Your task to perform on an android device: turn pop-ups off in chrome Image 0: 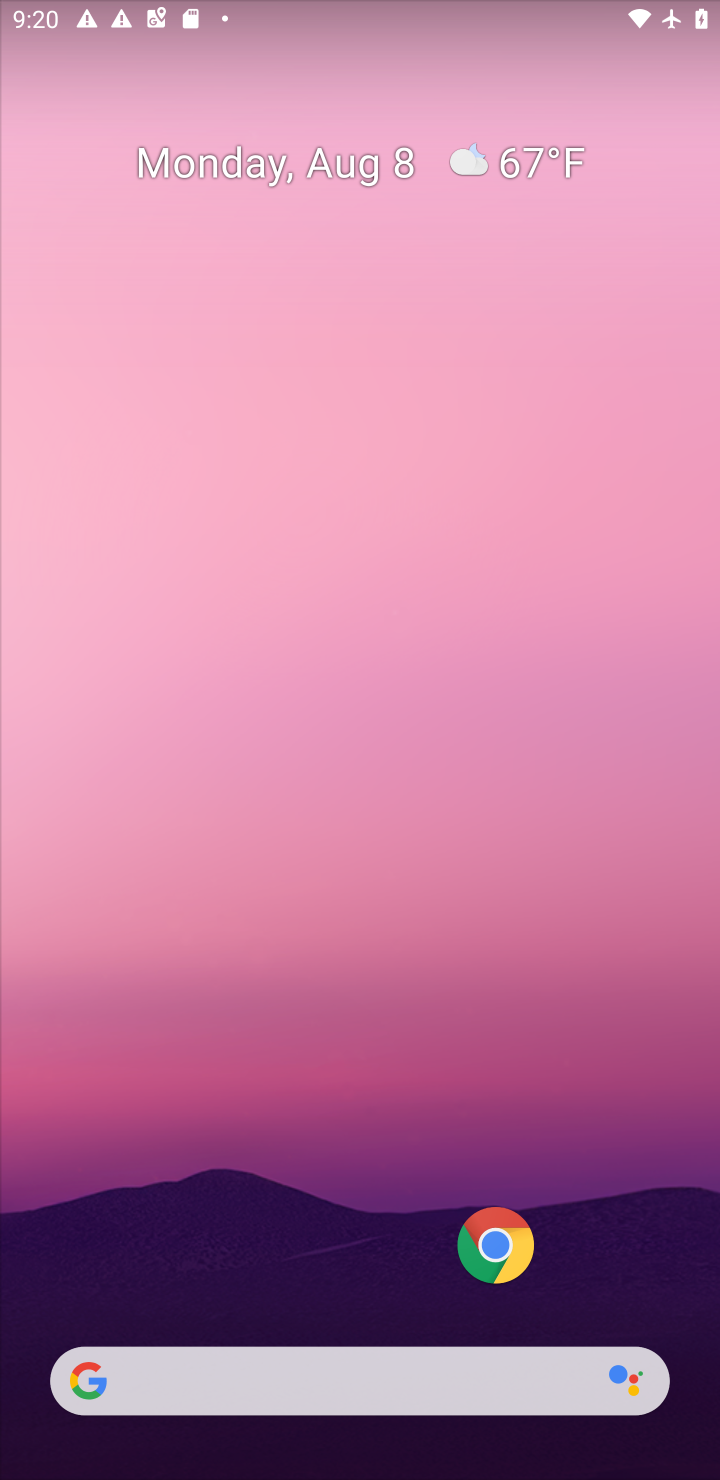
Step 0: click (470, 1240)
Your task to perform on an android device: turn pop-ups off in chrome Image 1: 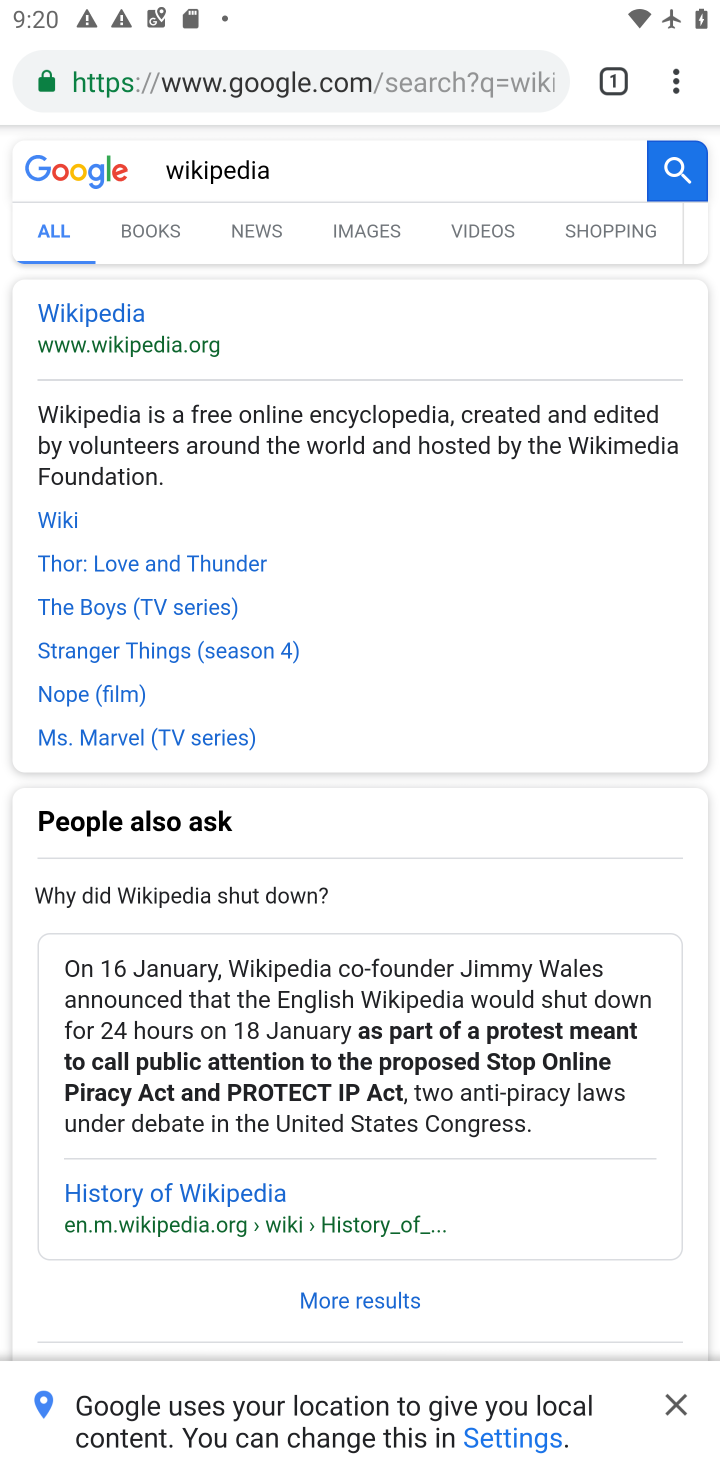
Step 1: click (667, 72)
Your task to perform on an android device: turn pop-ups off in chrome Image 2: 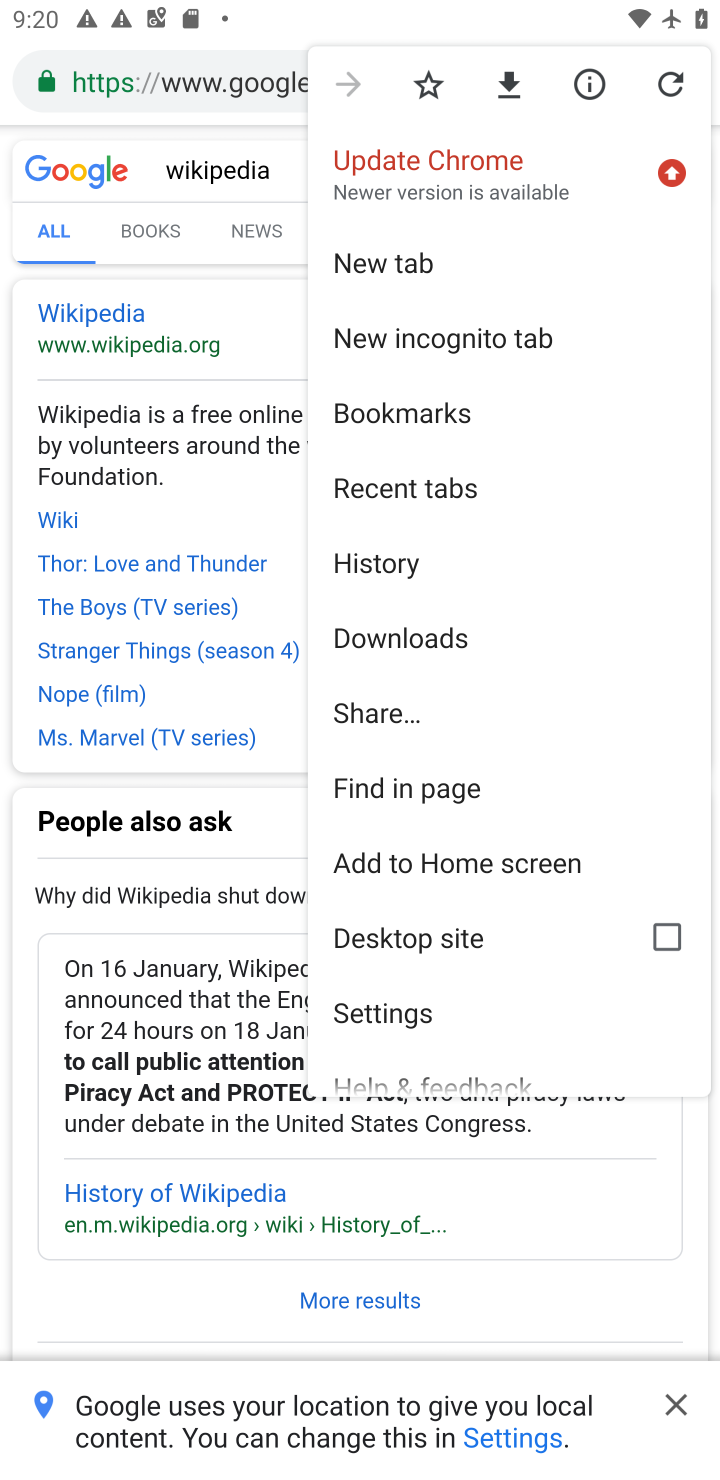
Step 2: click (416, 1004)
Your task to perform on an android device: turn pop-ups off in chrome Image 3: 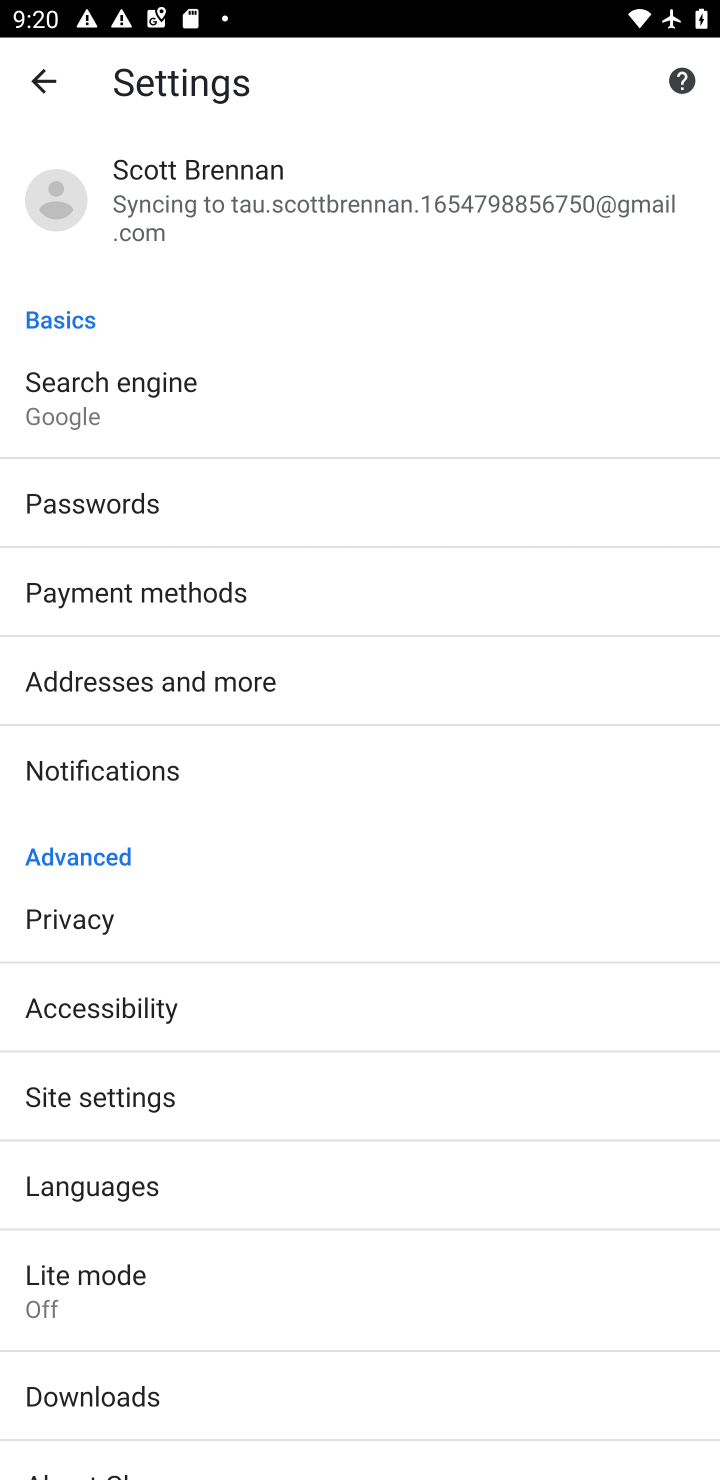
Step 3: click (130, 1098)
Your task to perform on an android device: turn pop-ups off in chrome Image 4: 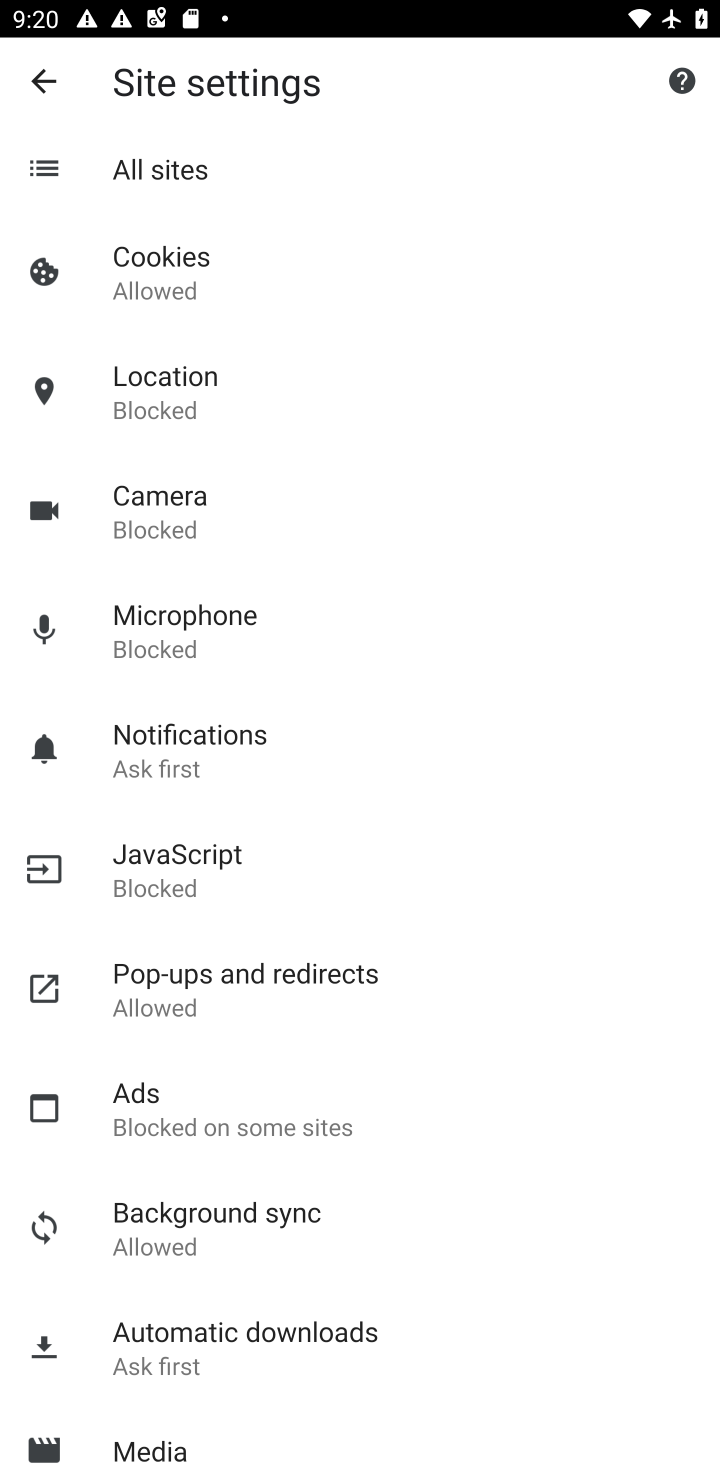
Step 4: click (178, 985)
Your task to perform on an android device: turn pop-ups off in chrome Image 5: 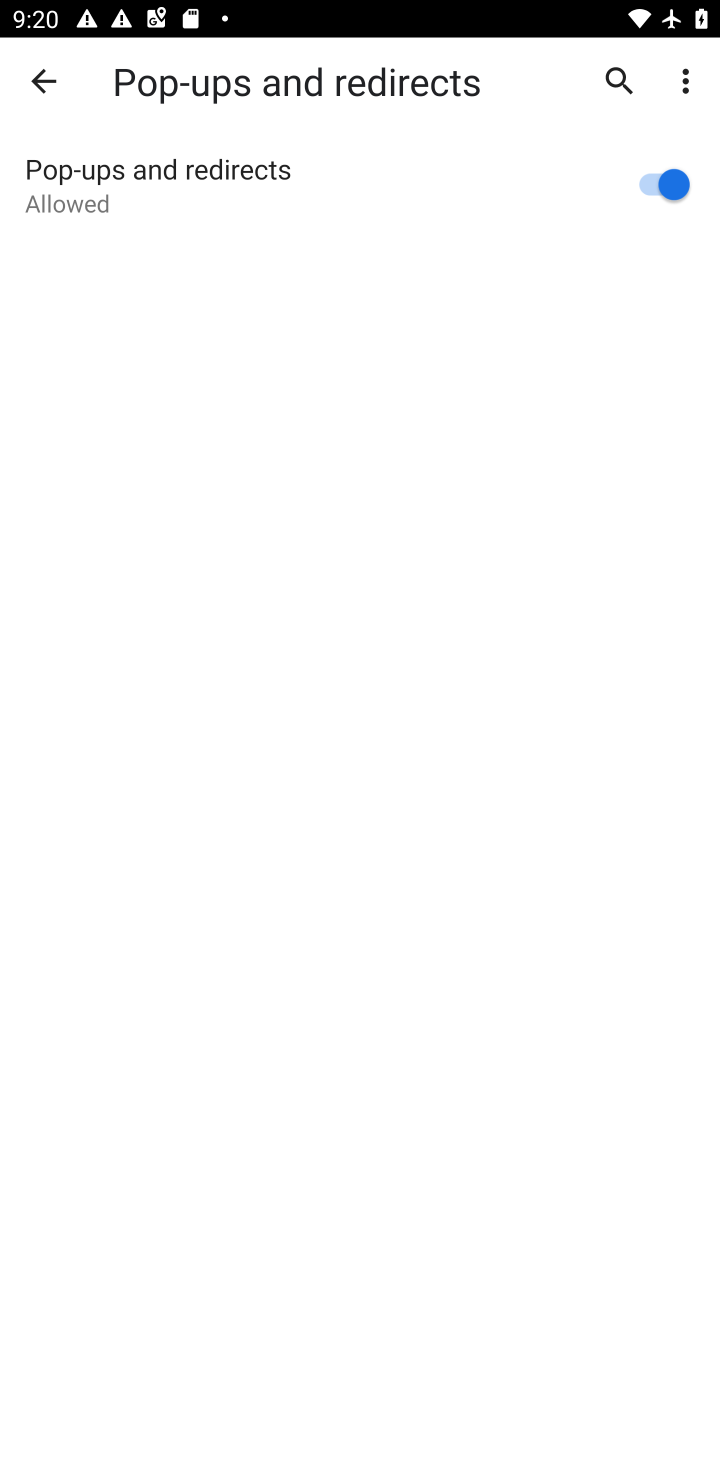
Step 5: click (640, 137)
Your task to perform on an android device: turn pop-ups off in chrome Image 6: 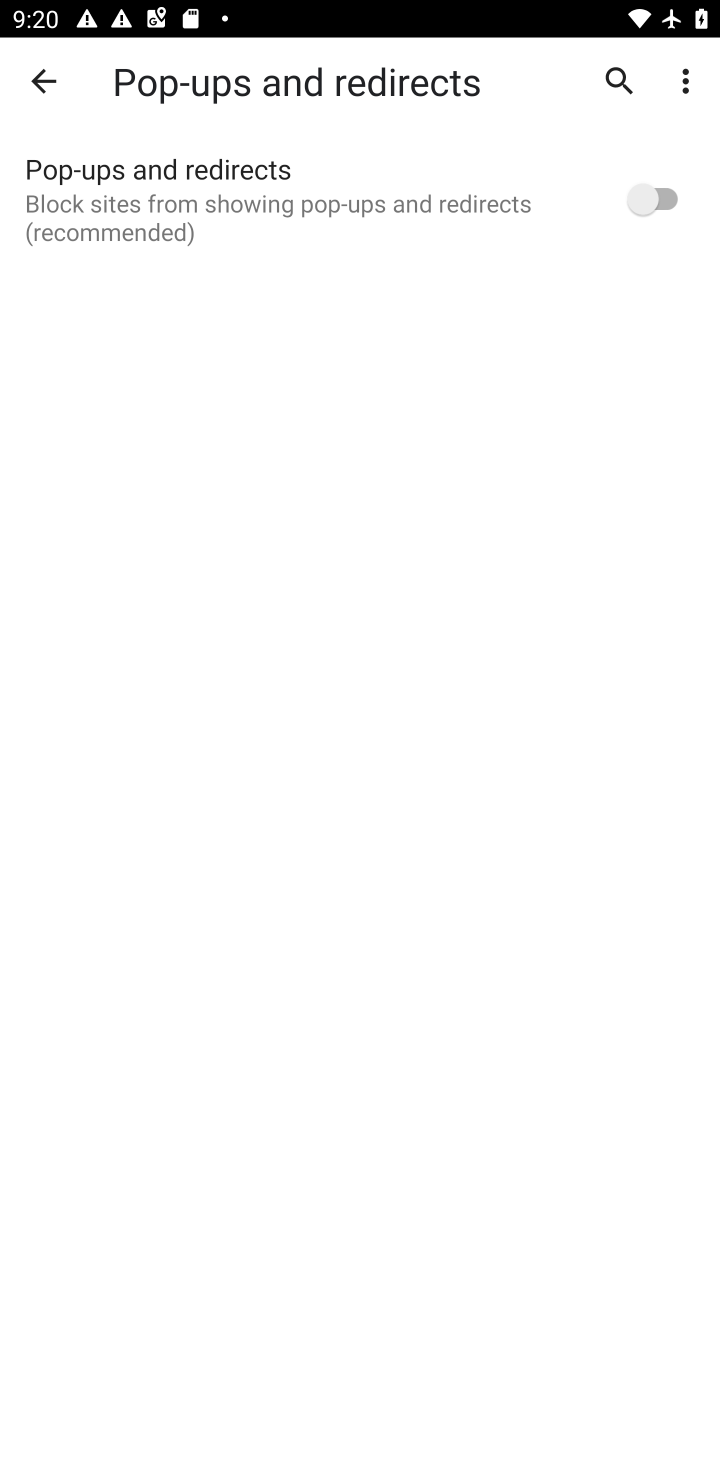
Step 6: task complete